Your task to perform on an android device: make emails show in primary in the gmail app Image 0: 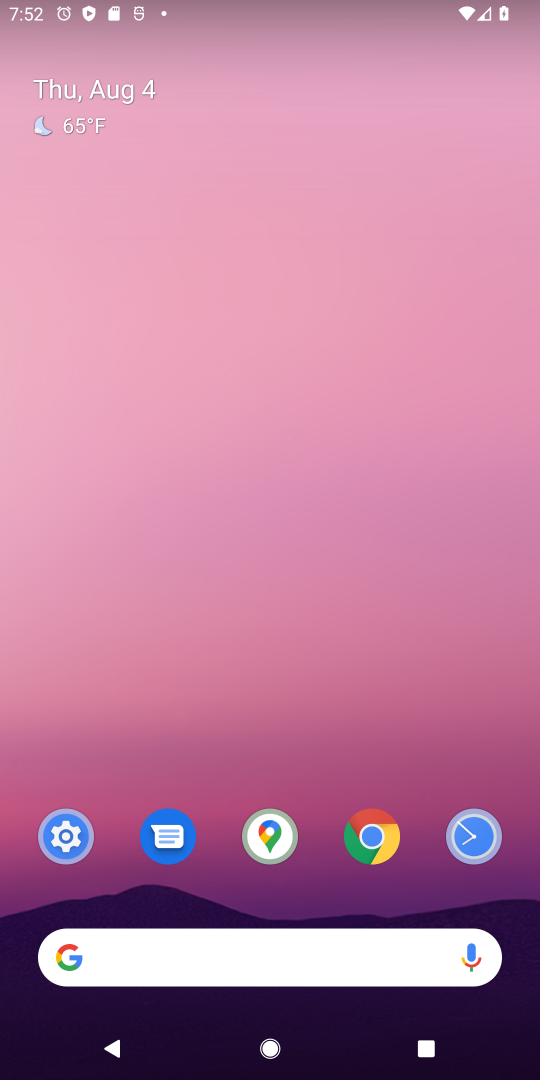
Step 0: drag from (262, 922) to (252, 152)
Your task to perform on an android device: make emails show in primary in the gmail app Image 1: 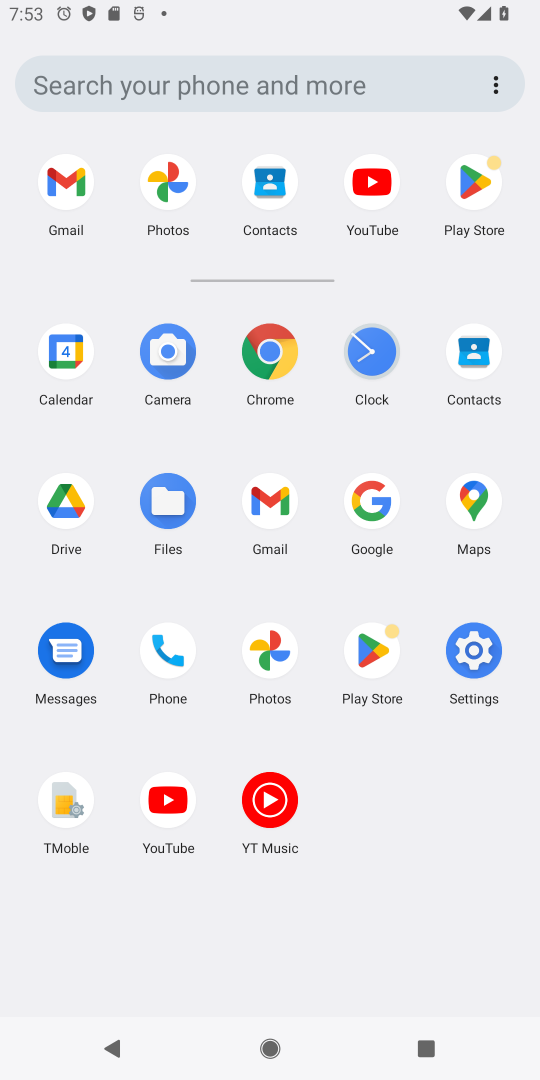
Step 1: click (258, 507)
Your task to perform on an android device: make emails show in primary in the gmail app Image 2: 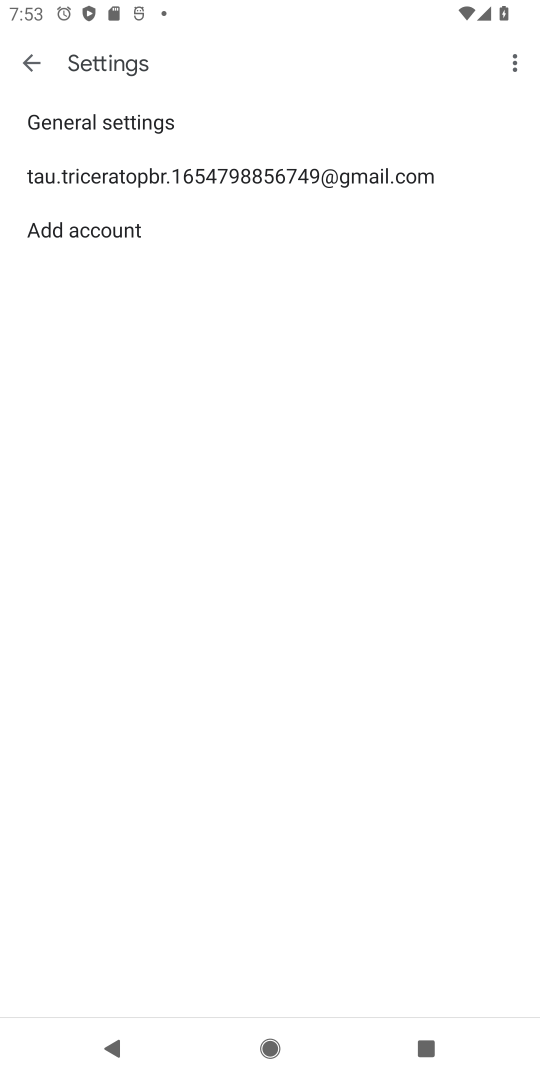
Step 2: click (276, 165)
Your task to perform on an android device: make emails show in primary in the gmail app Image 3: 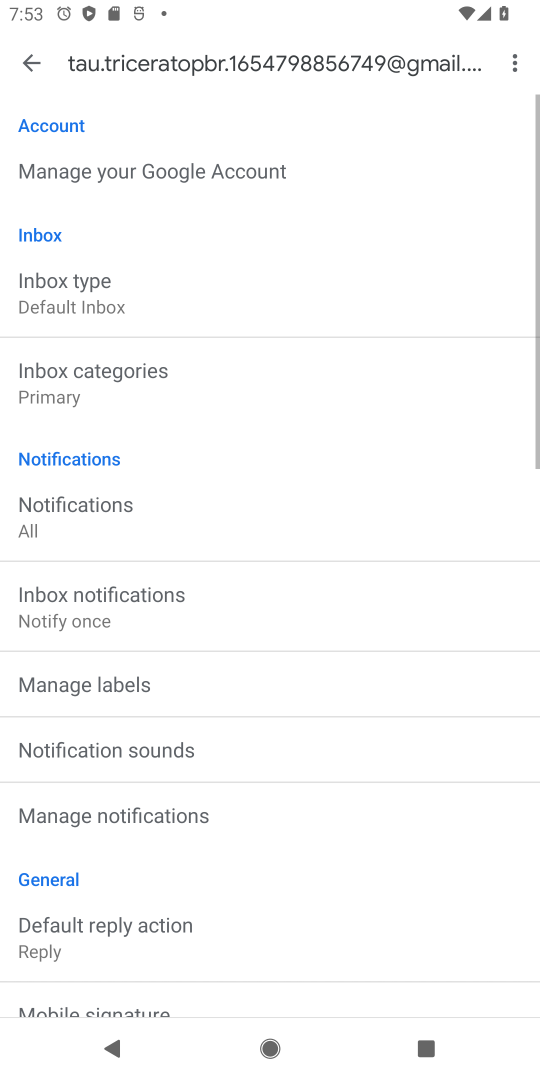
Step 3: click (124, 369)
Your task to perform on an android device: make emails show in primary in the gmail app Image 4: 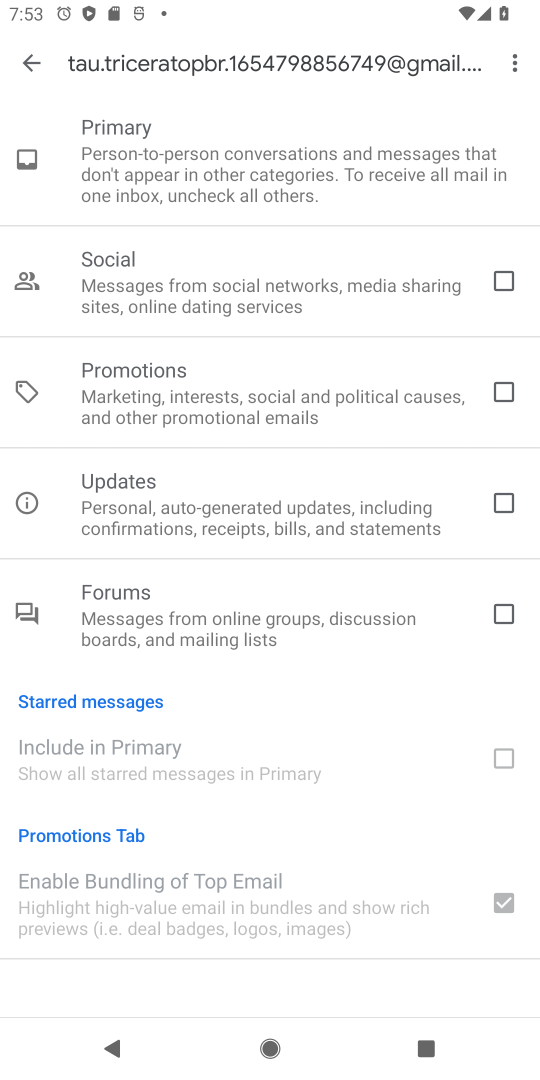
Step 4: click (496, 622)
Your task to perform on an android device: make emails show in primary in the gmail app Image 5: 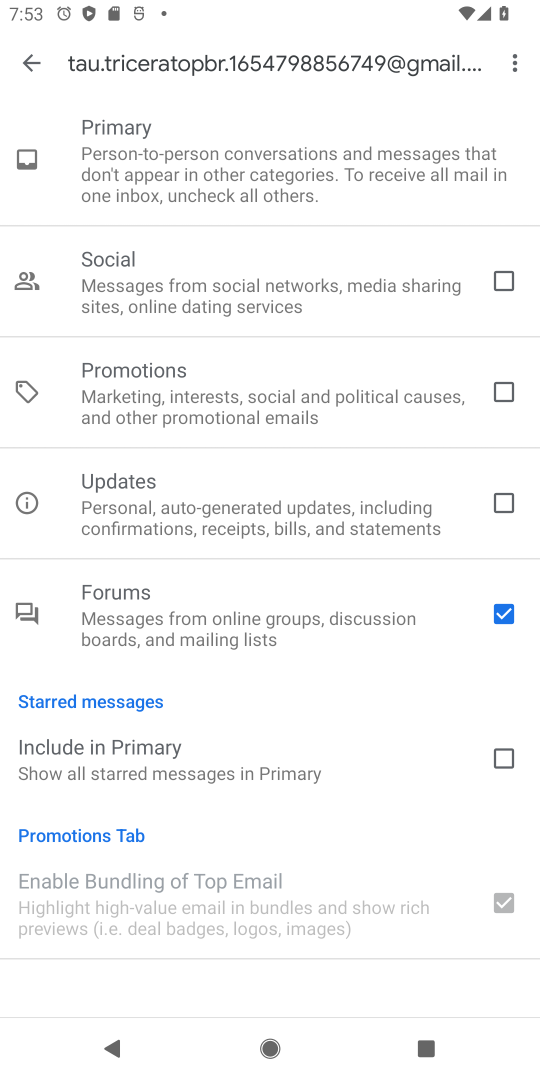
Step 5: click (497, 504)
Your task to perform on an android device: make emails show in primary in the gmail app Image 6: 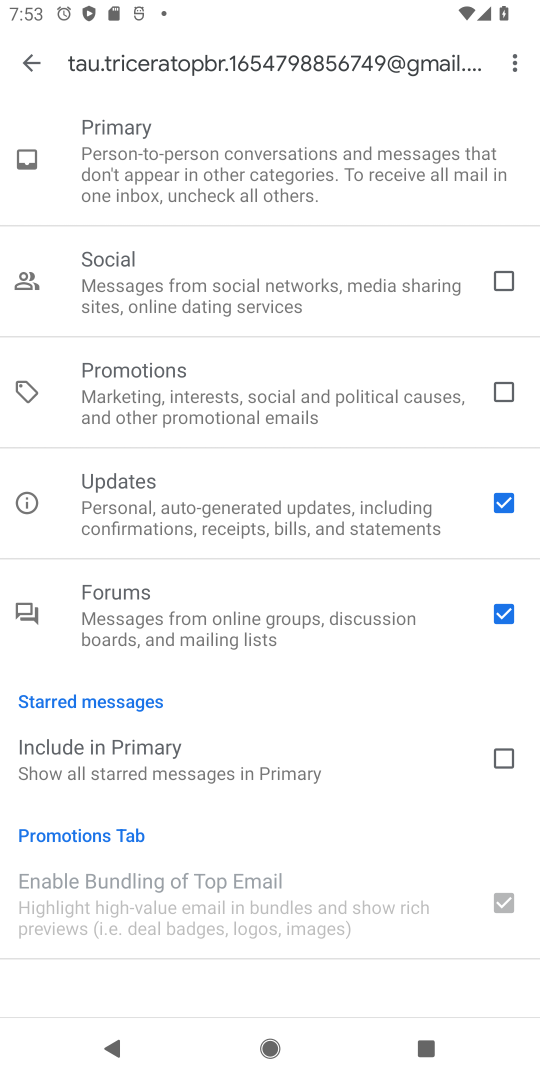
Step 6: click (511, 387)
Your task to perform on an android device: make emails show in primary in the gmail app Image 7: 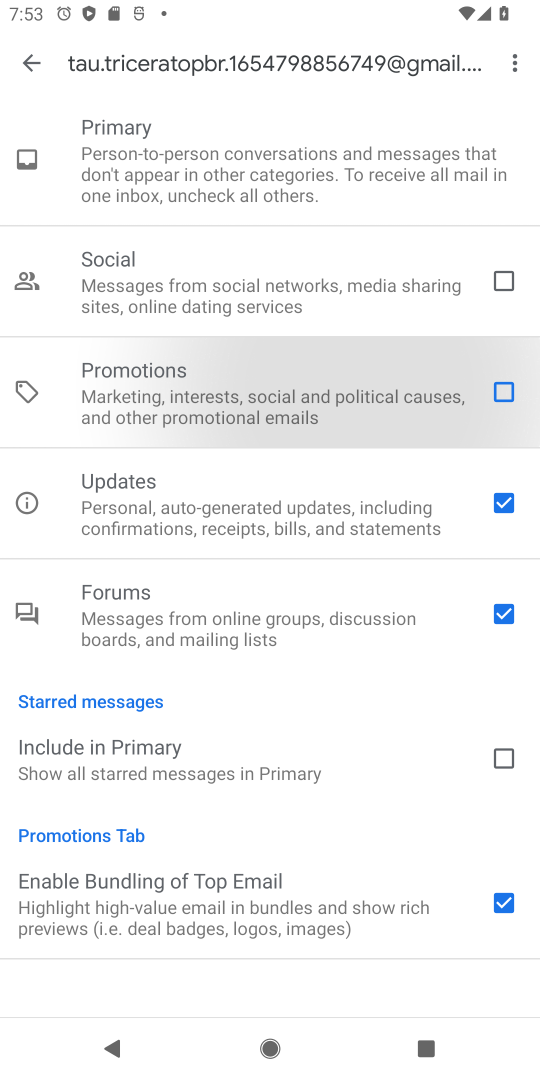
Step 7: click (515, 757)
Your task to perform on an android device: make emails show in primary in the gmail app Image 8: 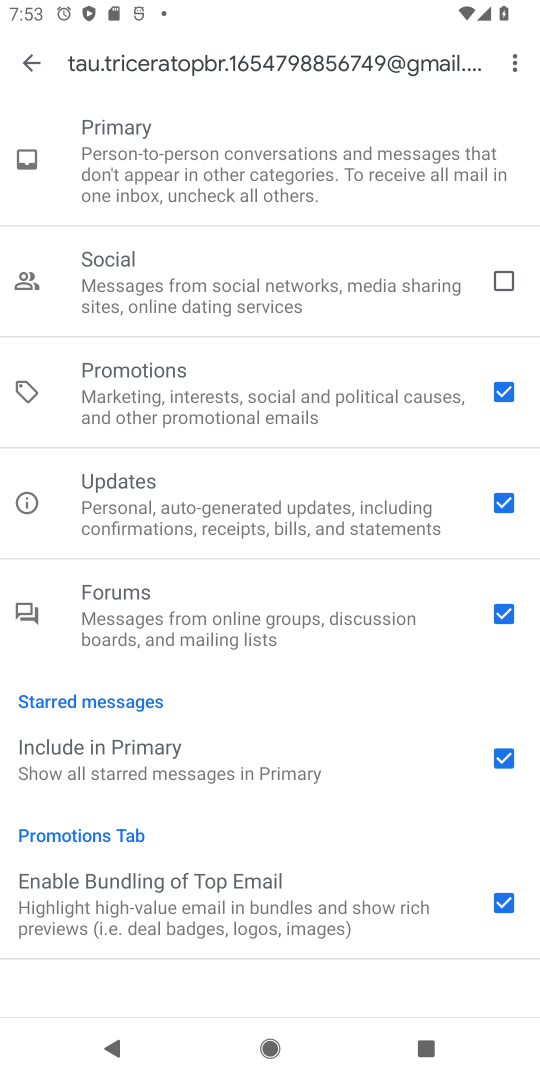
Step 8: click (507, 276)
Your task to perform on an android device: make emails show in primary in the gmail app Image 9: 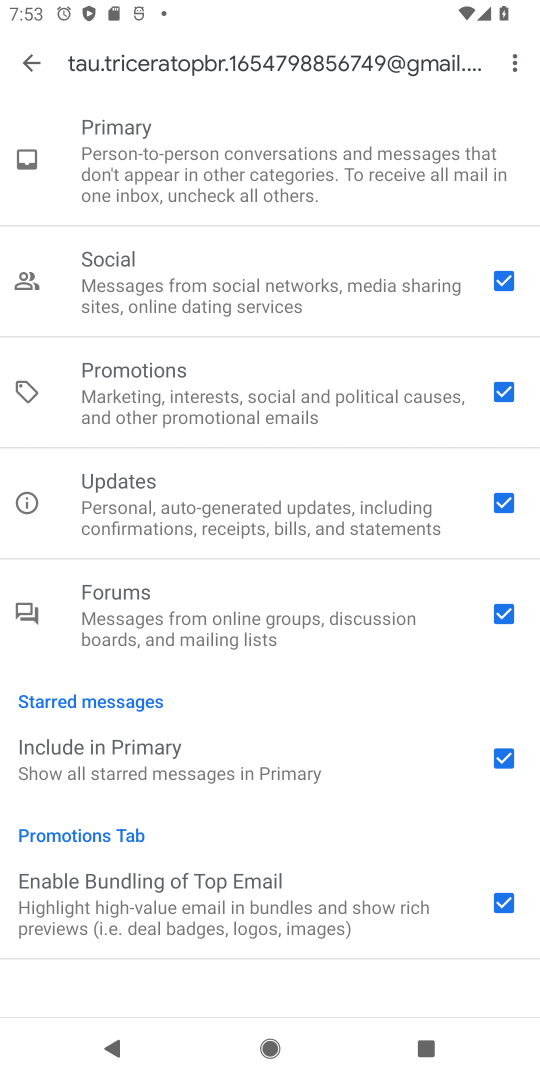
Step 9: task complete